Your task to perform on an android device: Show me productivity apps on the Play Store Image 0: 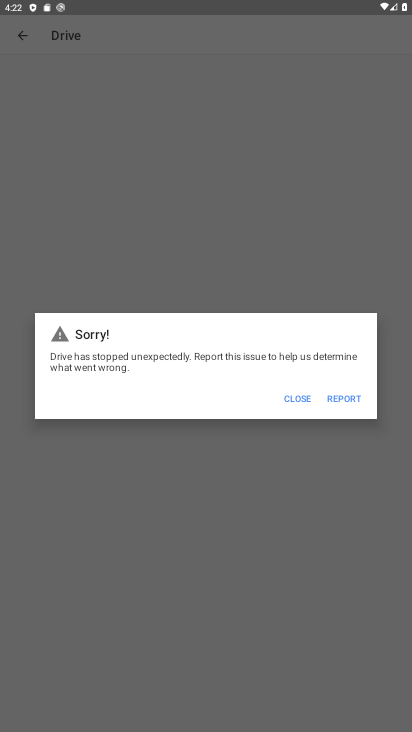
Step 0: press home button
Your task to perform on an android device: Show me productivity apps on the Play Store Image 1: 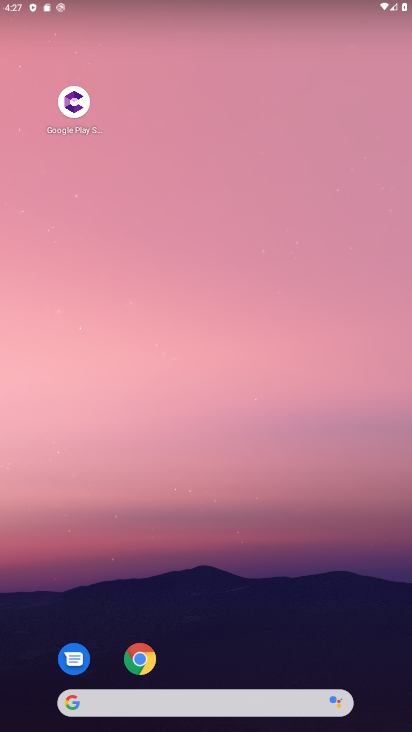
Step 1: drag from (286, 572) to (314, 14)
Your task to perform on an android device: Show me productivity apps on the Play Store Image 2: 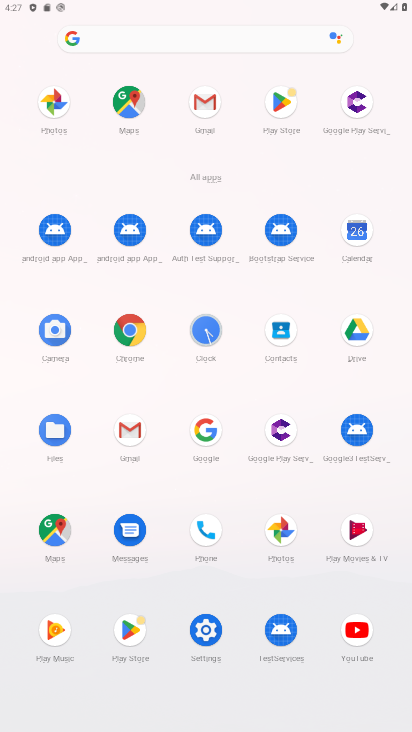
Step 2: click (127, 615)
Your task to perform on an android device: Show me productivity apps on the Play Store Image 3: 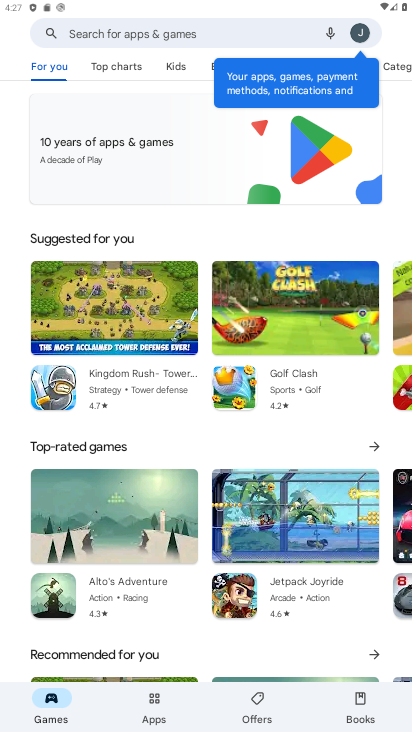
Step 3: task complete